Your task to perform on an android device: Open Google Chrome Image 0: 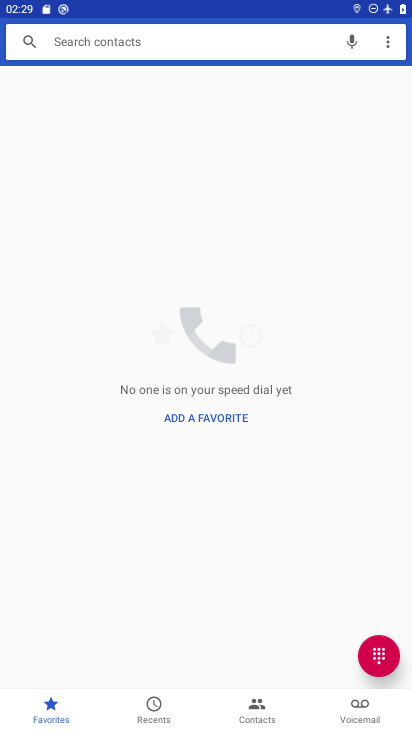
Step 0: press home button
Your task to perform on an android device: Open Google Chrome Image 1: 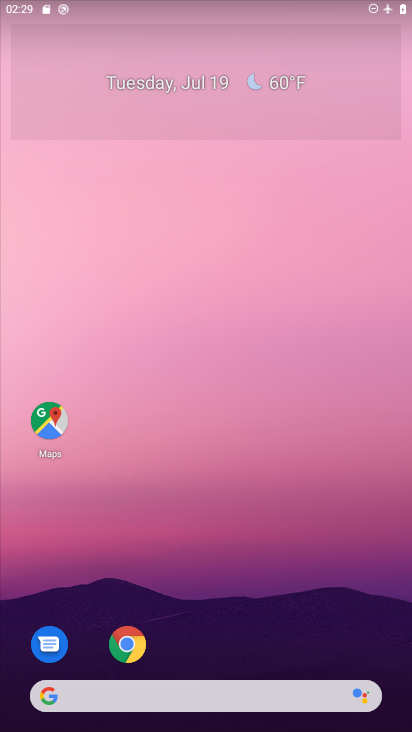
Step 1: click (138, 637)
Your task to perform on an android device: Open Google Chrome Image 2: 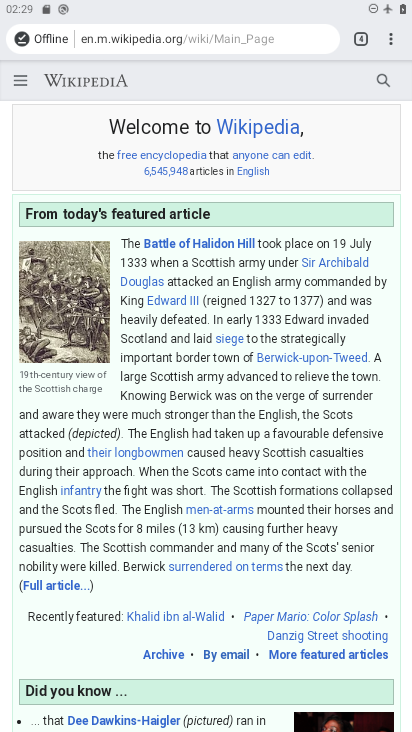
Step 2: click (364, 34)
Your task to perform on an android device: Open Google Chrome Image 3: 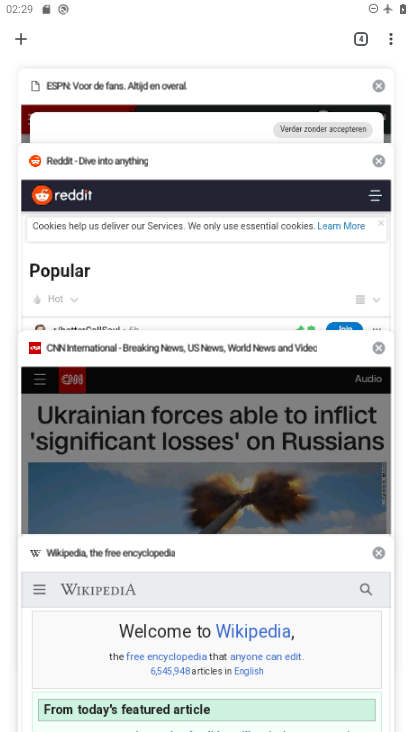
Step 3: click (27, 37)
Your task to perform on an android device: Open Google Chrome Image 4: 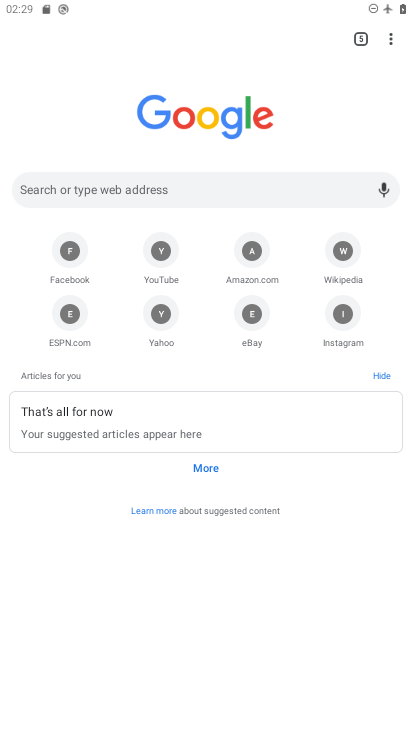
Step 4: task complete